Your task to perform on an android device: Open settings on Google Maps Image 0: 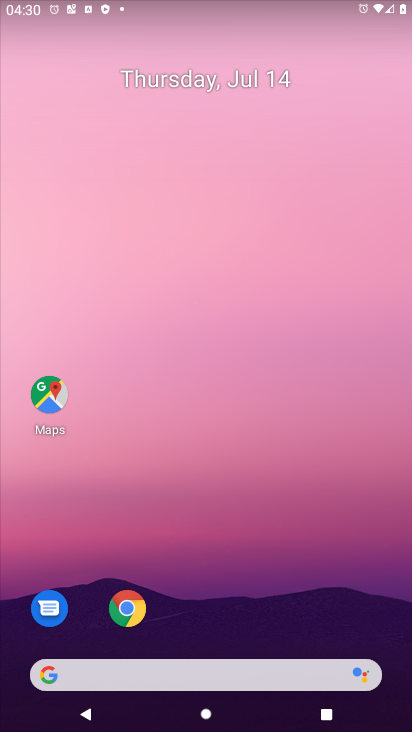
Step 0: click (50, 394)
Your task to perform on an android device: Open settings on Google Maps Image 1: 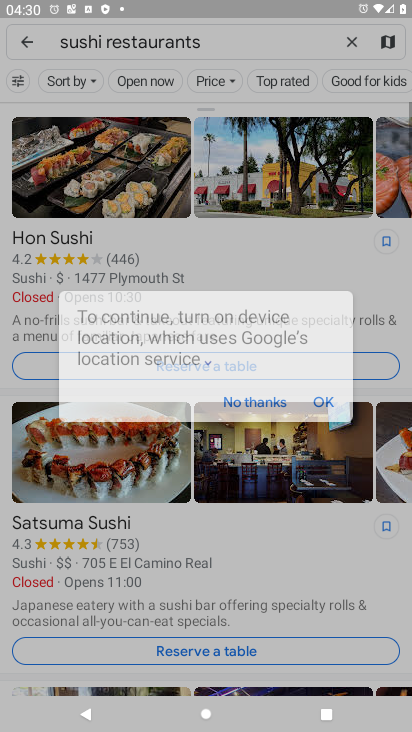
Step 1: click (350, 37)
Your task to perform on an android device: Open settings on Google Maps Image 2: 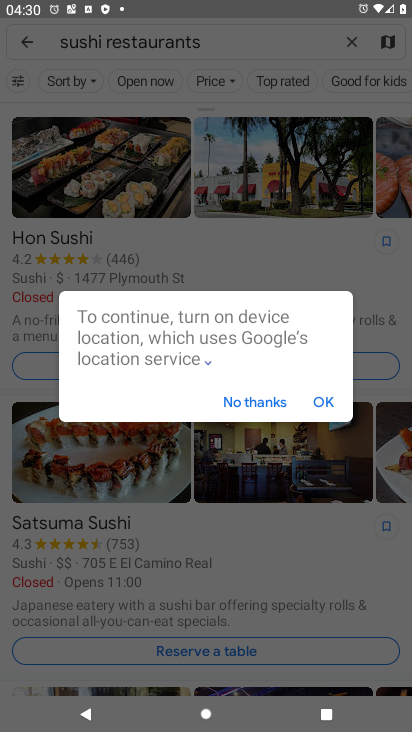
Step 2: click (324, 399)
Your task to perform on an android device: Open settings on Google Maps Image 3: 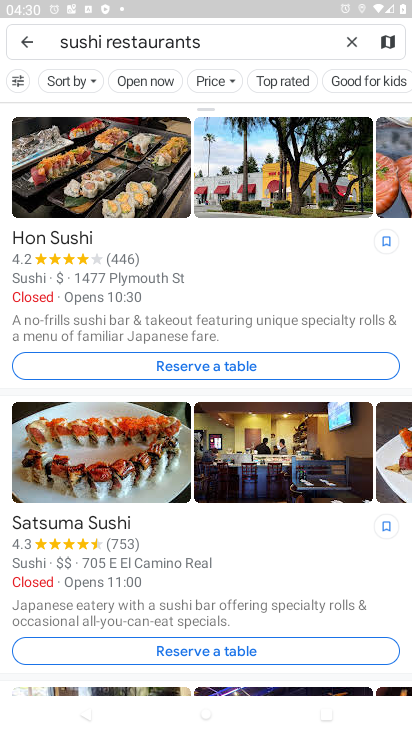
Step 3: click (347, 38)
Your task to perform on an android device: Open settings on Google Maps Image 4: 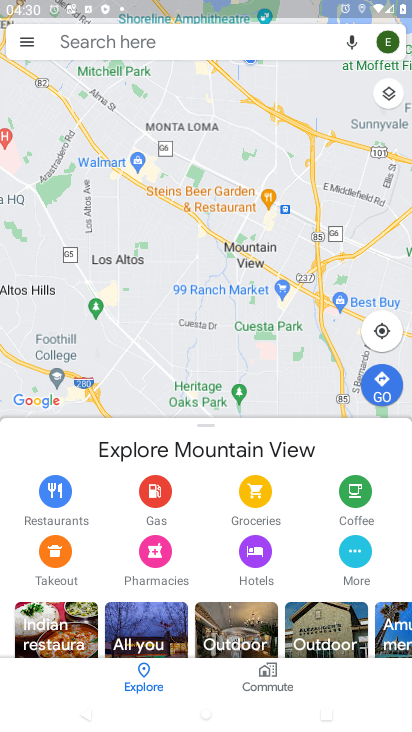
Step 4: click (26, 39)
Your task to perform on an android device: Open settings on Google Maps Image 5: 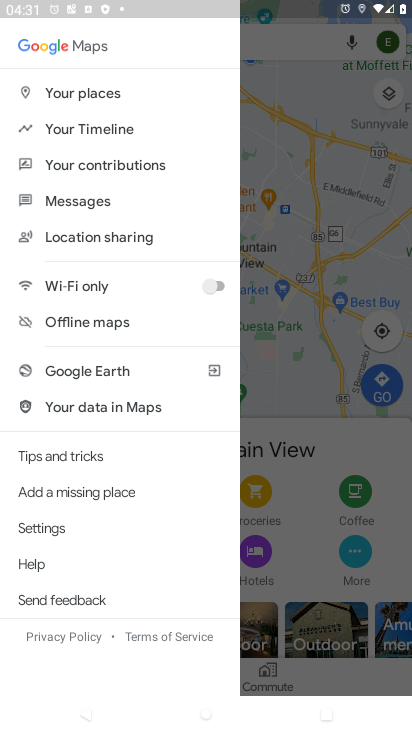
Step 5: click (42, 535)
Your task to perform on an android device: Open settings on Google Maps Image 6: 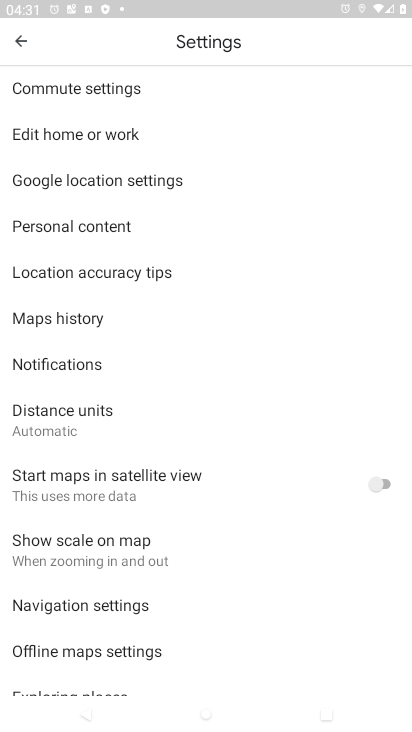
Step 6: task complete